Your task to perform on an android device: Open notification settings Image 0: 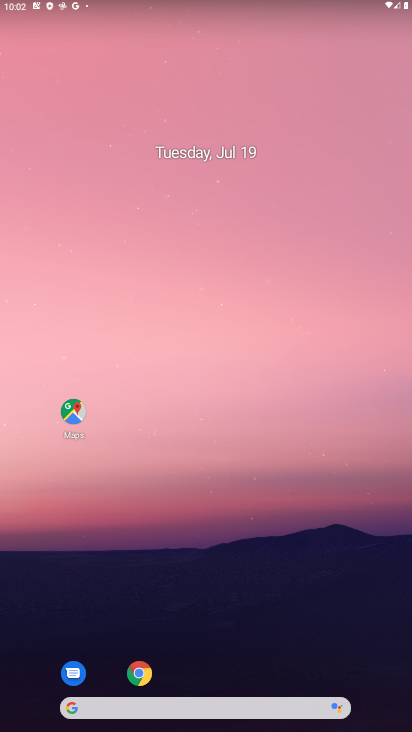
Step 0: drag from (270, 660) to (157, 20)
Your task to perform on an android device: Open notification settings Image 1: 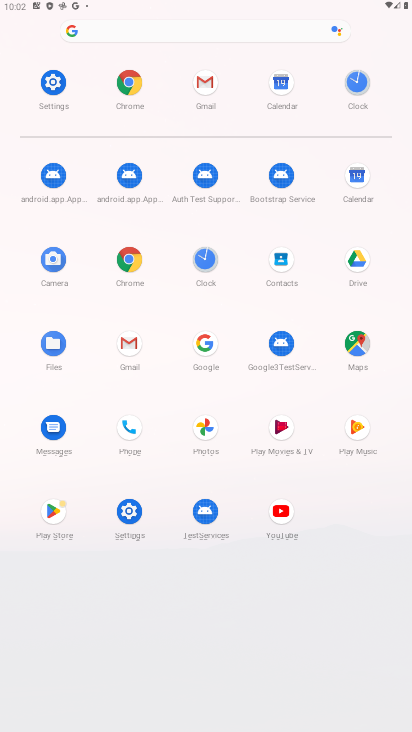
Step 1: click (60, 78)
Your task to perform on an android device: Open notification settings Image 2: 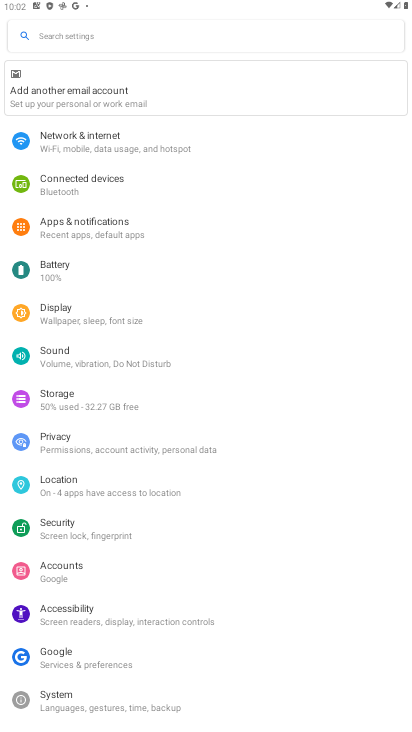
Step 2: click (158, 231)
Your task to perform on an android device: Open notification settings Image 3: 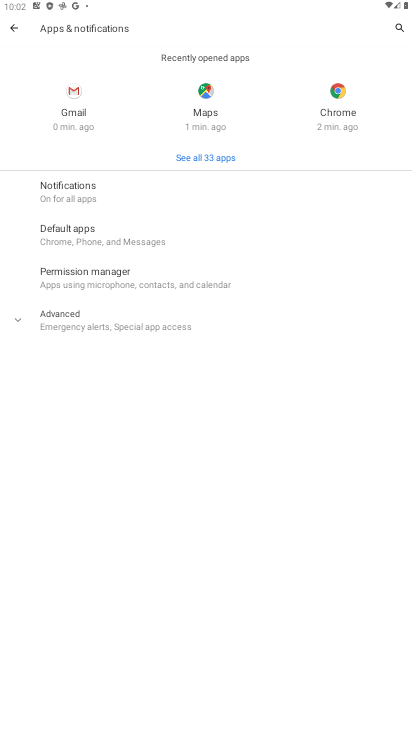
Step 3: task complete